Your task to perform on an android device: refresh tabs in the chrome app Image 0: 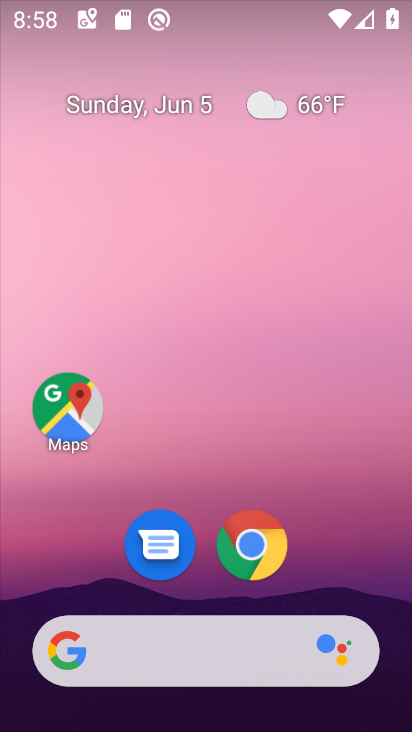
Step 0: drag from (378, 531) to (356, 147)
Your task to perform on an android device: refresh tabs in the chrome app Image 1: 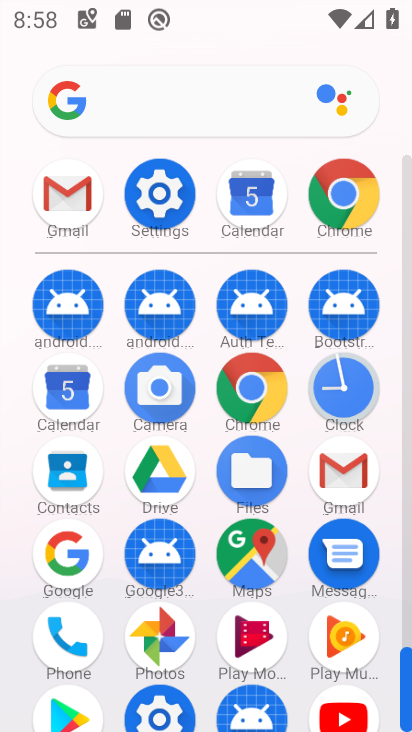
Step 1: click (267, 394)
Your task to perform on an android device: refresh tabs in the chrome app Image 2: 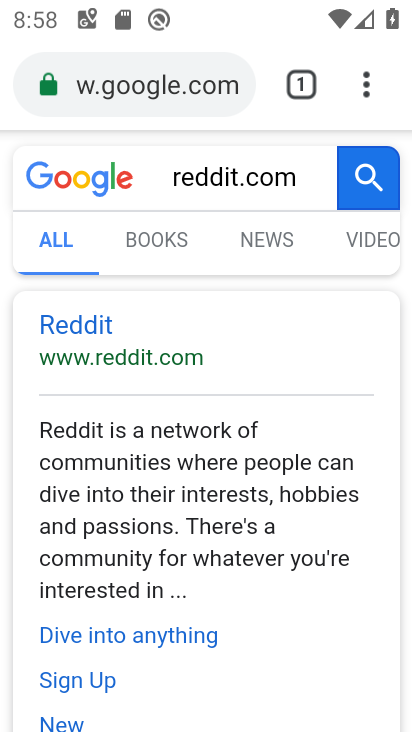
Step 2: click (366, 88)
Your task to perform on an android device: refresh tabs in the chrome app Image 3: 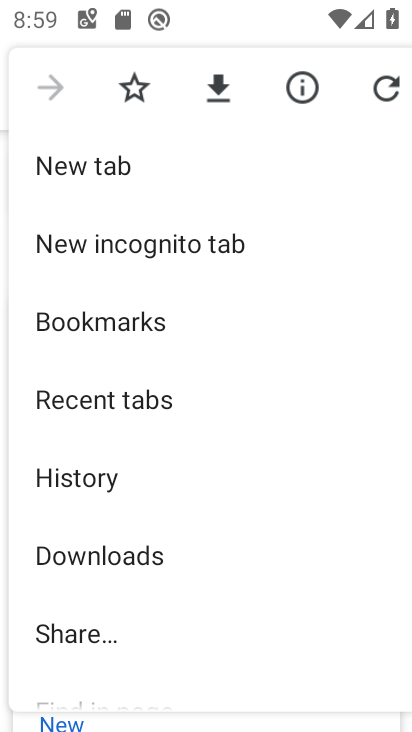
Step 3: drag from (317, 594) to (306, 430)
Your task to perform on an android device: refresh tabs in the chrome app Image 4: 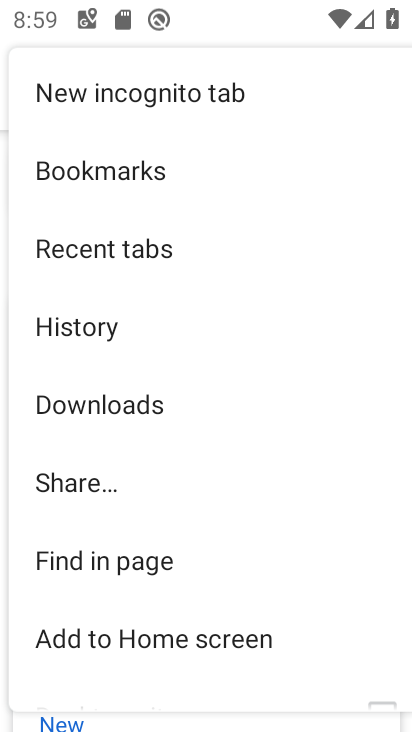
Step 4: drag from (307, 535) to (313, 315)
Your task to perform on an android device: refresh tabs in the chrome app Image 5: 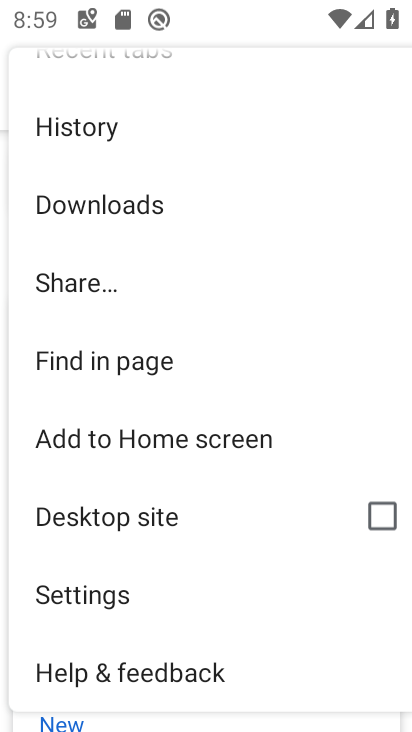
Step 5: drag from (318, 224) to (302, 446)
Your task to perform on an android device: refresh tabs in the chrome app Image 6: 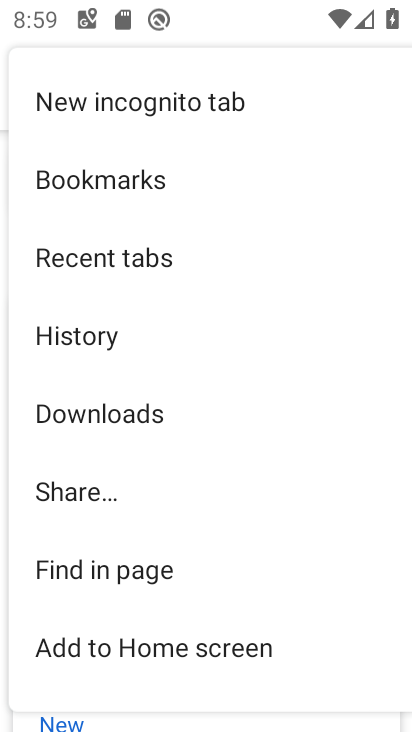
Step 6: drag from (336, 214) to (335, 449)
Your task to perform on an android device: refresh tabs in the chrome app Image 7: 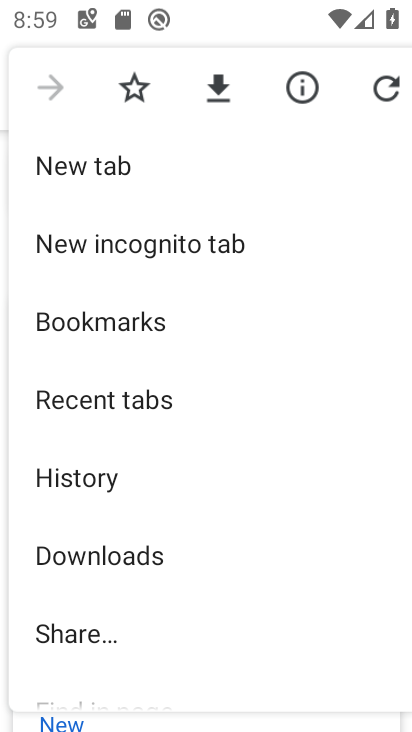
Step 7: click (384, 87)
Your task to perform on an android device: refresh tabs in the chrome app Image 8: 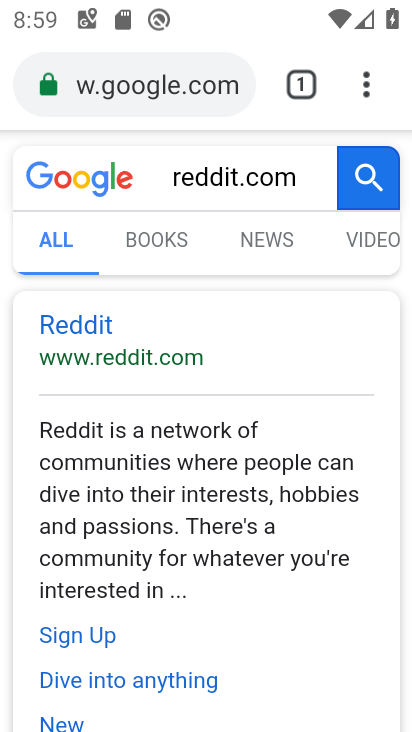
Step 8: task complete